Your task to perform on an android device: Open calendar and show me the second week of next month Image 0: 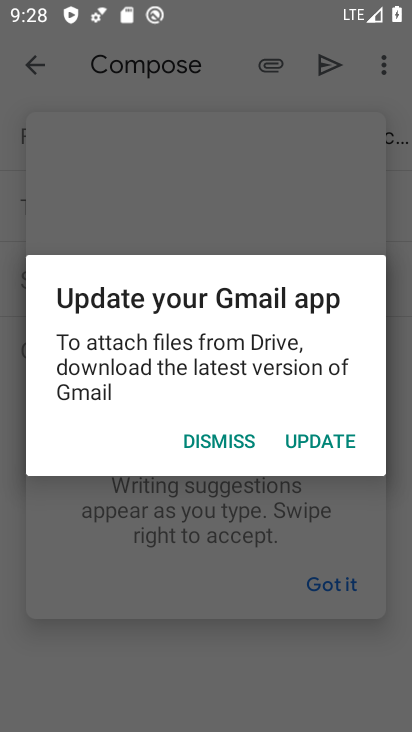
Step 0: press home button
Your task to perform on an android device: Open calendar and show me the second week of next month Image 1: 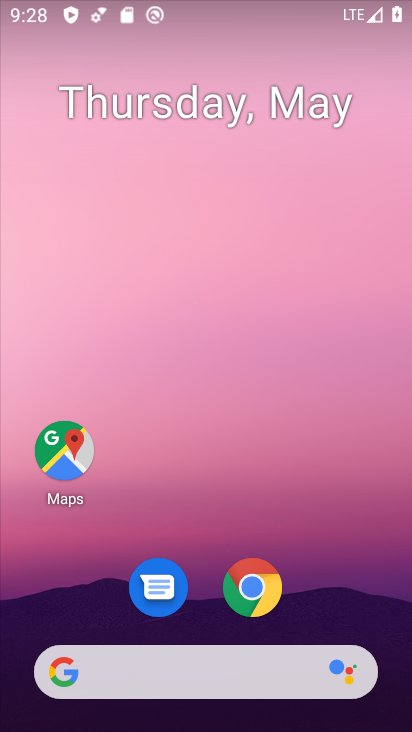
Step 1: drag from (335, 612) to (309, 4)
Your task to perform on an android device: Open calendar and show me the second week of next month Image 2: 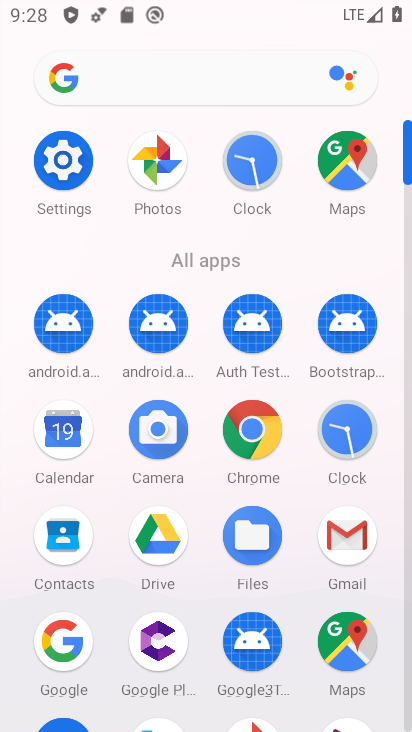
Step 2: click (55, 434)
Your task to perform on an android device: Open calendar and show me the second week of next month Image 3: 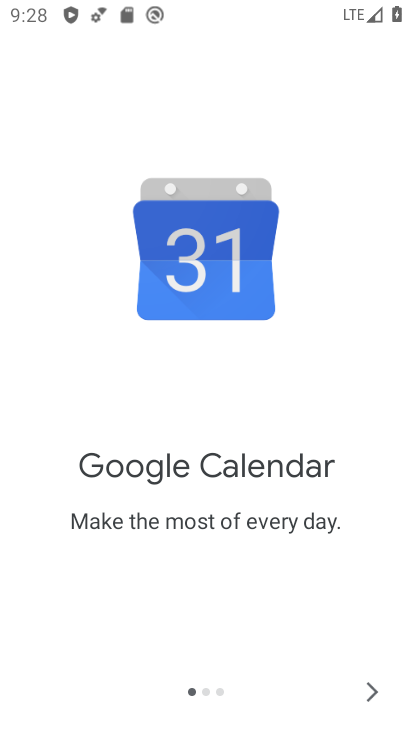
Step 3: click (375, 693)
Your task to perform on an android device: Open calendar and show me the second week of next month Image 4: 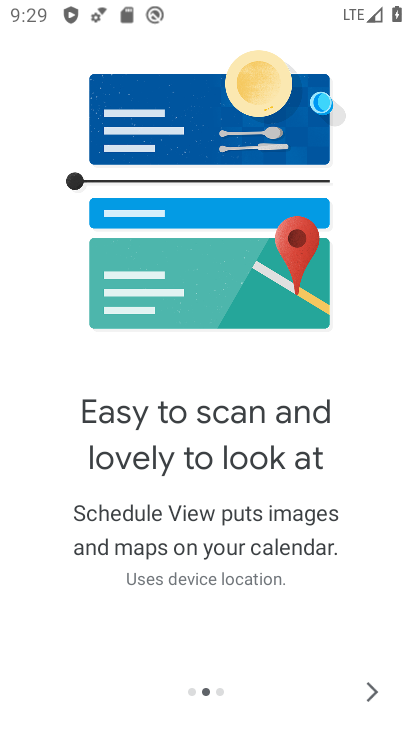
Step 4: click (362, 698)
Your task to perform on an android device: Open calendar and show me the second week of next month Image 5: 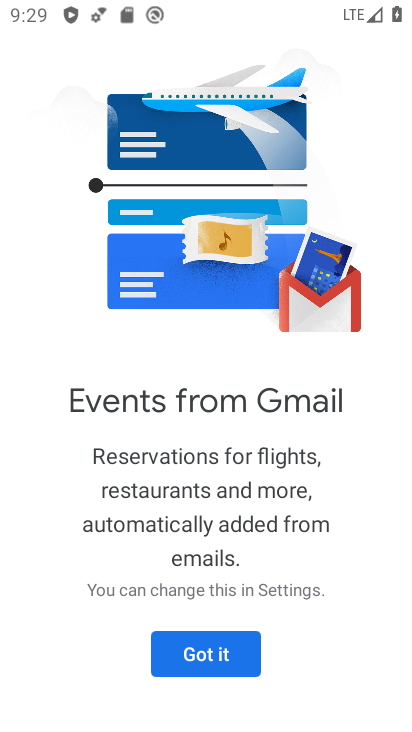
Step 5: click (208, 660)
Your task to perform on an android device: Open calendar and show me the second week of next month Image 6: 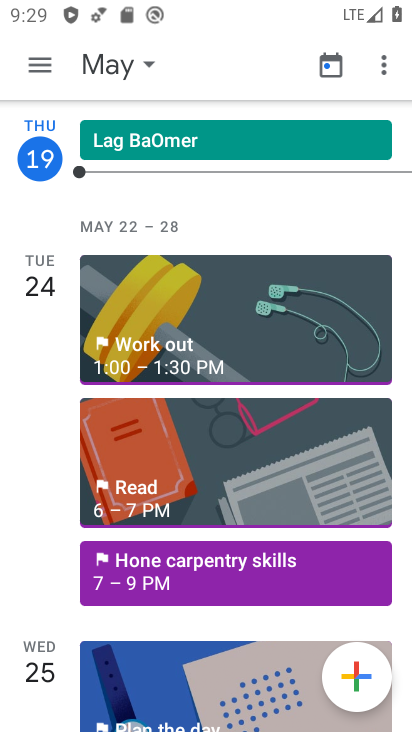
Step 6: click (149, 65)
Your task to perform on an android device: Open calendar and show me the second week of next month Image 7: 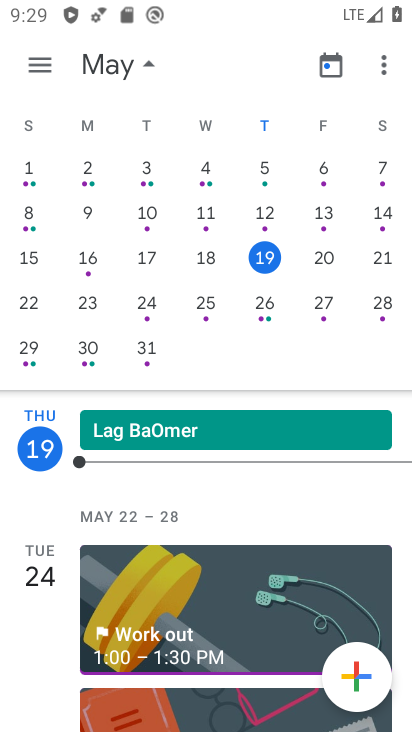
Step 7: drag from (321, 283) to (18, 139)
Your task to perform on an android device: Open calendar and show me the second week of next month Image 8: 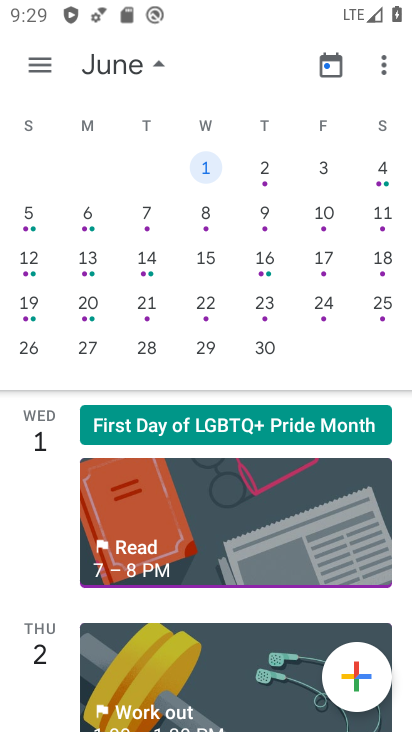
Step 8: click (41, 64)
Your task to perform on an android device: Open calendar and show me the second week of next month Image 9: 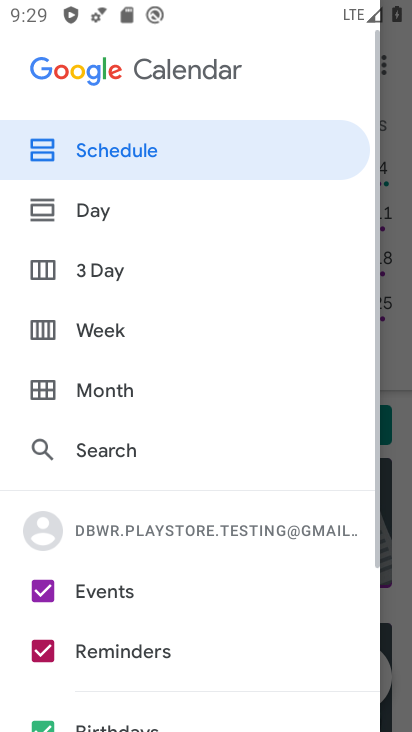
Step 9: click (47, 332)
Your task to perform on an android device: Open calendar and show me the second week of next month Image 10: 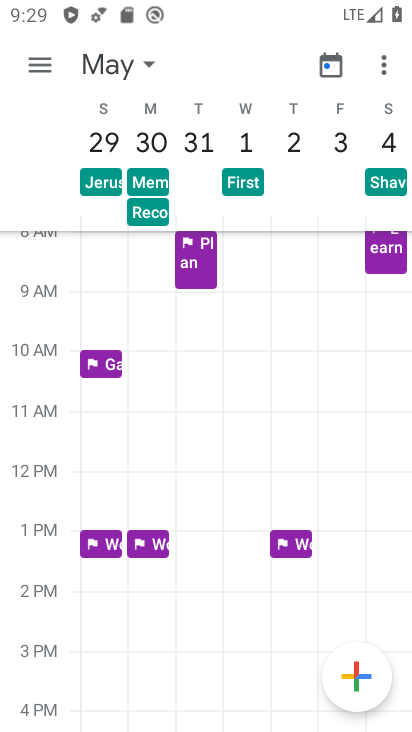
Step 10: task complete